Your task to perform on an android device: allow notifications from all sites in the chrome app Image 0: 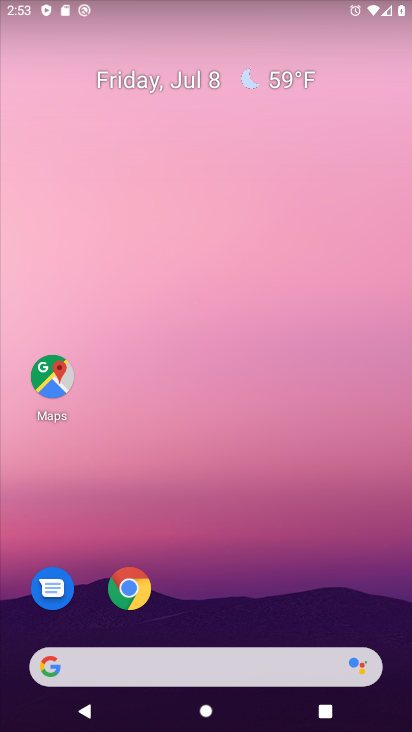
Step 0: drag from (187, 627) to (339, 1)
Your task to perform on an android device: allow notifications from all sites in the chrome app Image 1: 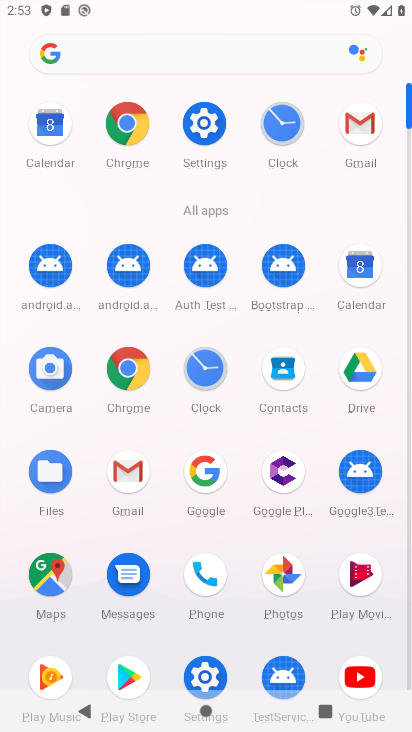
Step 1: click (134, 367)
Your task to perform on an android device: allow notifications from all sites in the chrome app Image 2: 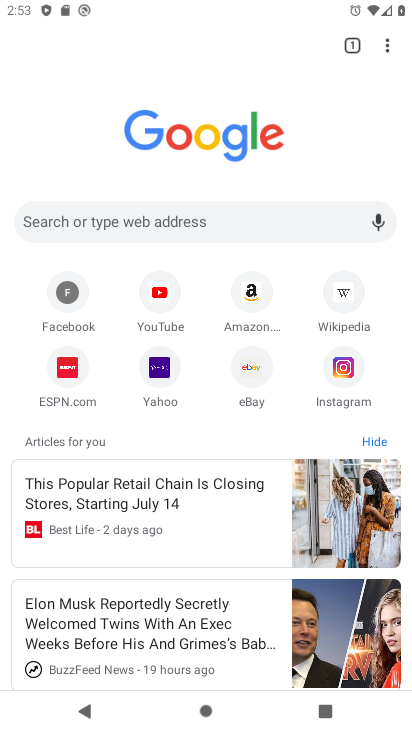
Step 2: click (391, 47)
Your task to perform on an android device: allow notifications from all sites in the chrome app Image 3: 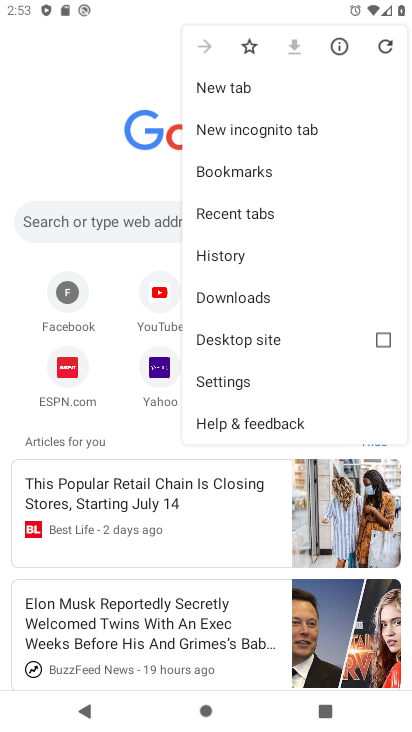
Step 3: click (222, 380)
Your task to perform on an android device: allow notifications from all sites in the chrome app Image 4: 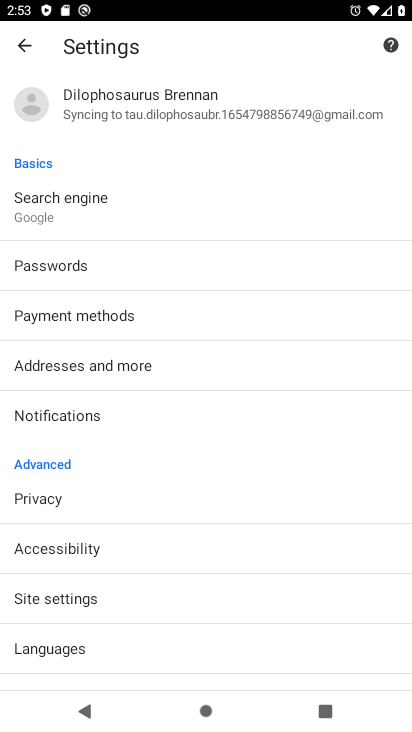
Step 4: click (86, 416)
Your task to perform on an android device: allow notifications from all sites in the chrome app Image 5: 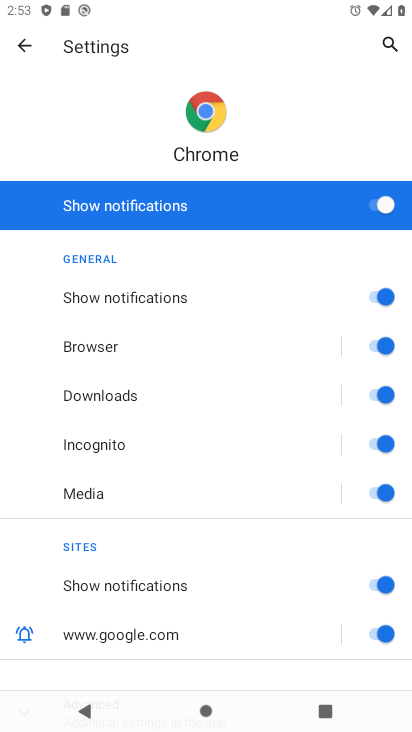
Step 5: task complete